Your task to perform on an android device: clear all cookies in the chrome app Image 0: 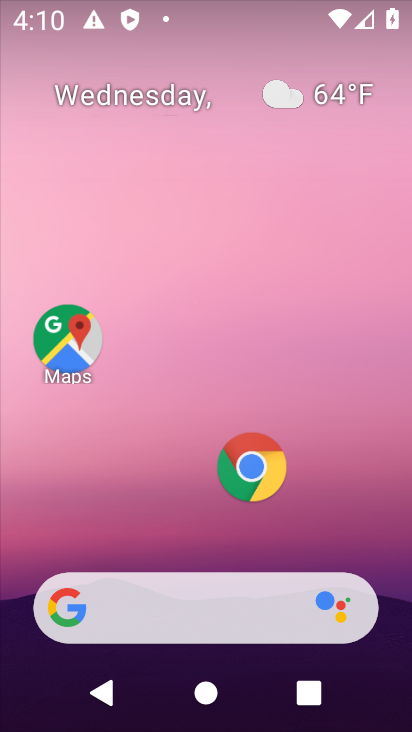
Step 0: click (278, 476)
Your task to perform on an android device: clear all cookies in the chrome app Image 1: 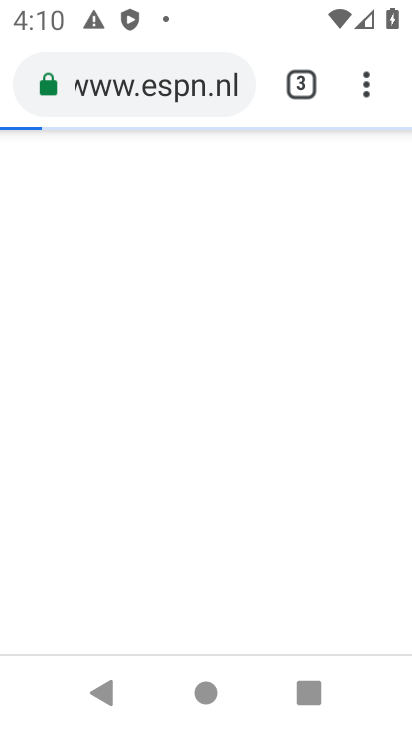
Step 1: task complete